Your task to perform on an android device: Go to location settings Image 0: 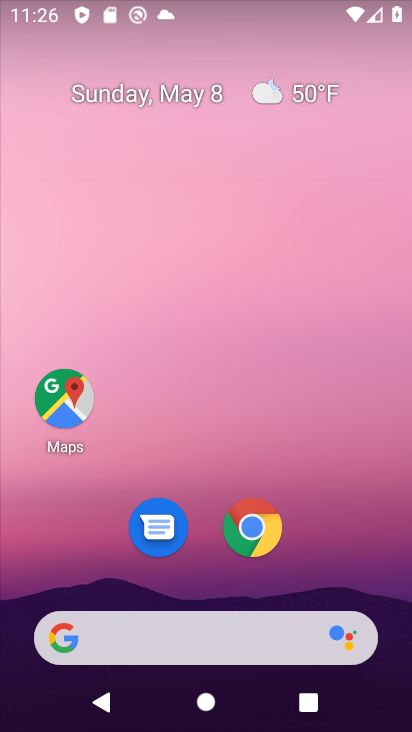
Step 0: drag from (226, 728) to (216, 137)
Your task to perform on an android device: Go to location settings Image 1: 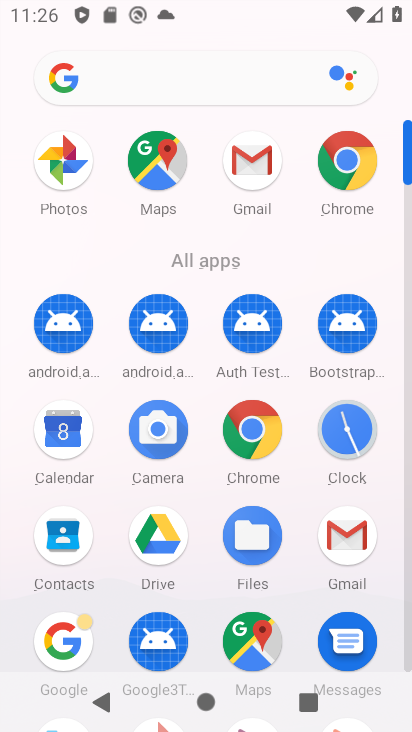
Step 1: drag from (21, 530) to (15, 149)
Your task to perform on an android device: Go to location settings Image 2: 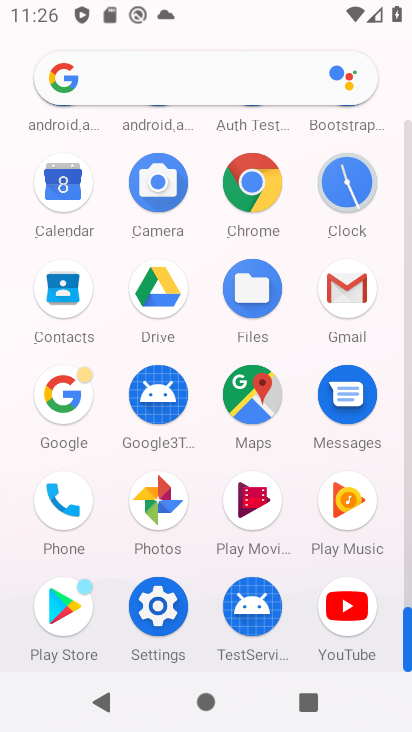
Step 2: click (170, 604)
Your task to perform on an android device: Go to location settings Image 3: 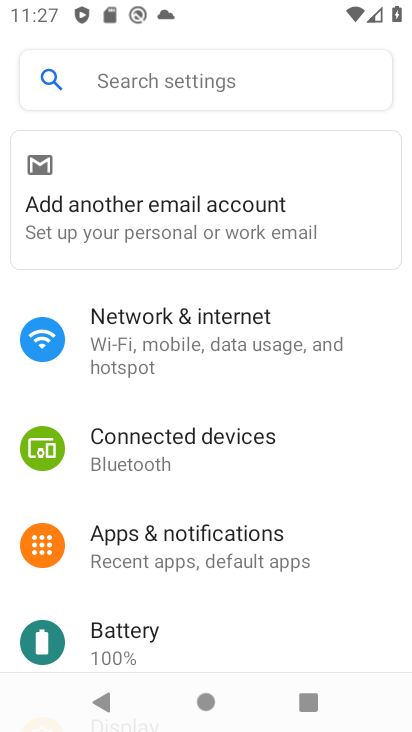
Step 3: drag from (267, 627) to (255, 373)
Your task to perform on an android device: Go to location settings Image 4: 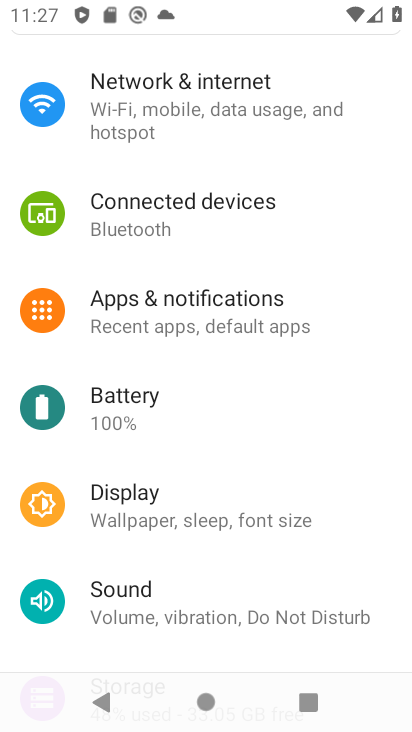
Step 4: drag from (158, 652) to (194, 368)
Your task to perform on an android device: Go to location settings Image 5: 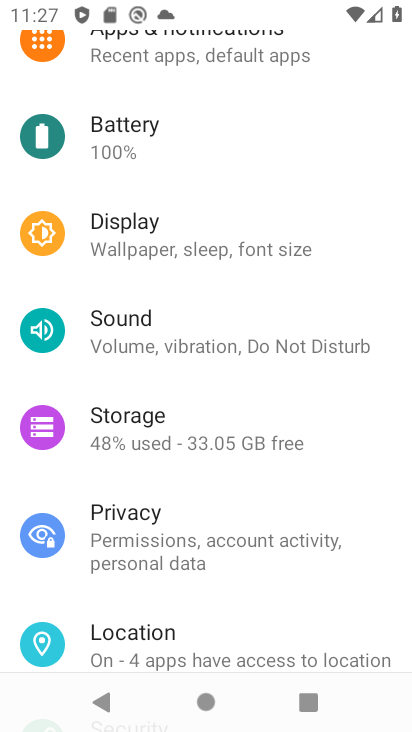
Step 5: click (152, 628)
Your task to perform on an android device: Go to location settings Image 6: 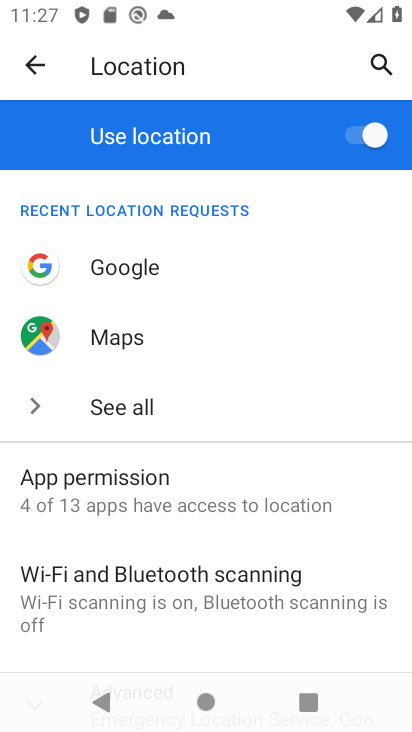
Step 6: drag from (144, 628) to (147, 332)
Your task to perform on an android device: Go to location settings Image 7: 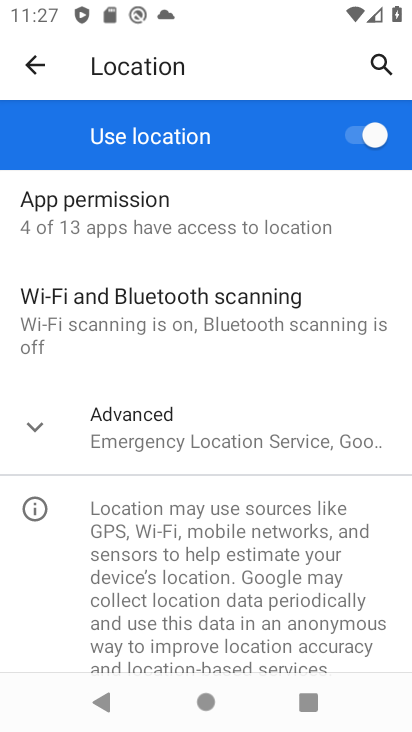
Step 7: click (132, 433)
Your task to perform on an android device: Go to location settings Image 8: 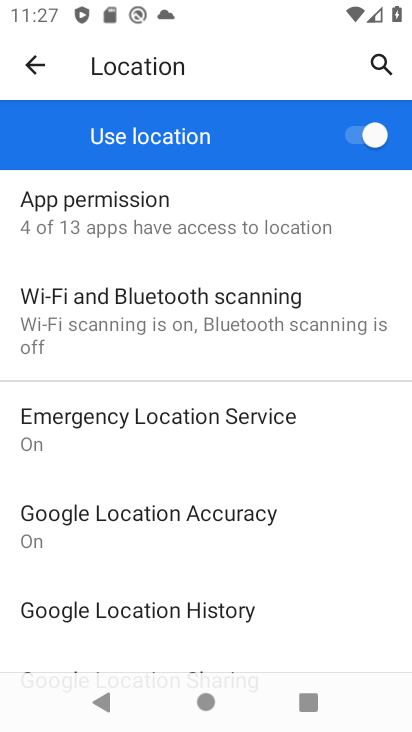
Step 8: task complete